Your task to perform on an android device: Open battery settings Image 0: 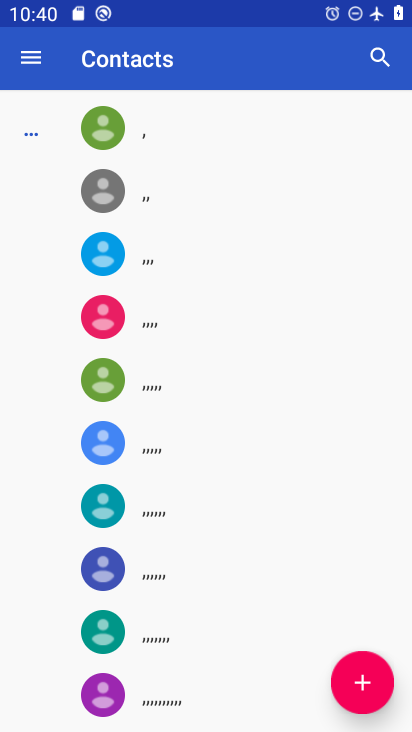
Step 0: press home button
Your task to perform on an android device: Open battery settings Image 1: 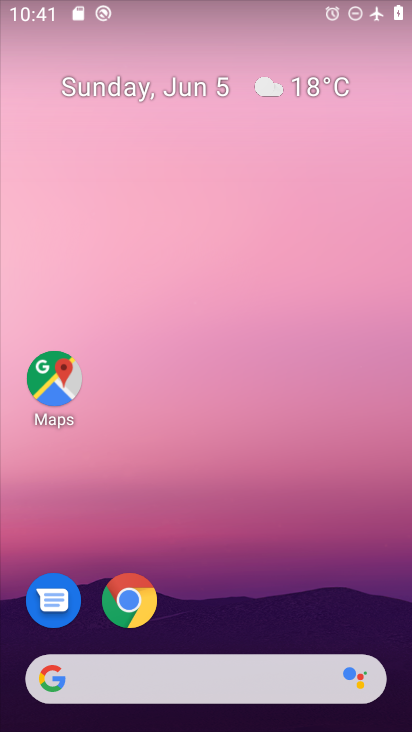
Step 1: drag from (235, 582) to (229, 0)
Your task to perform on an android device: Open battery settings Image 2: 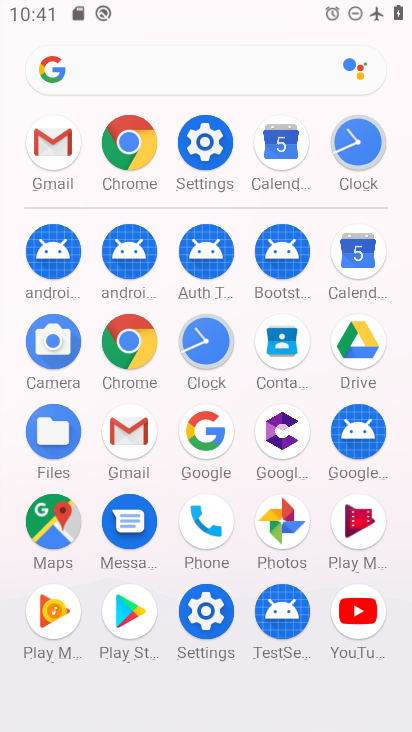
Step 2: click (216, 143)
Your task to perform on an android device: Open battery settings Image 3: 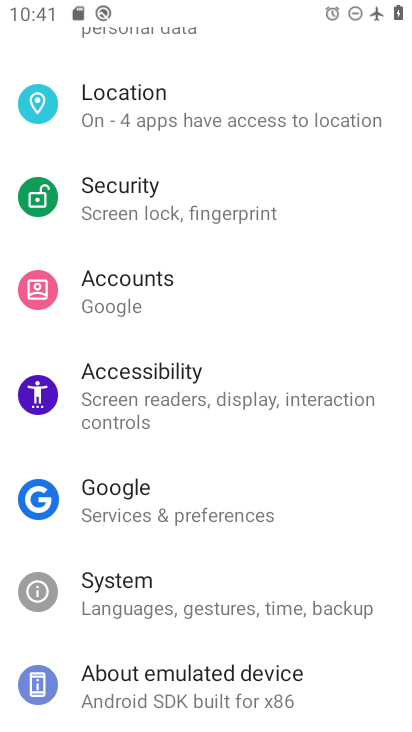
Step 3: drag from (215, 150) to (300, 730)
Your task to perform on an android device: Open battery settings Image 4: 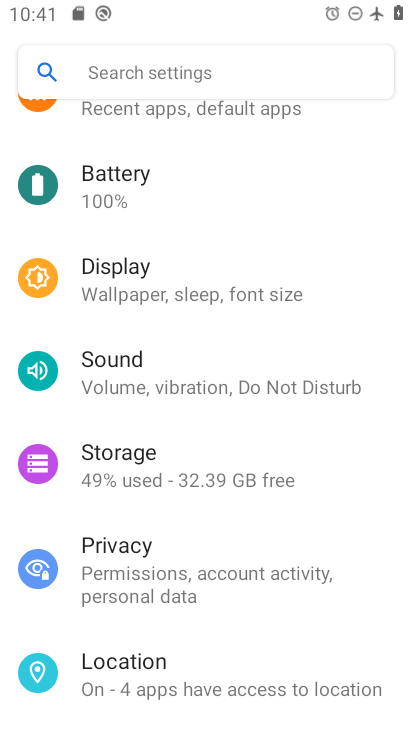
Step 4: click (178, 191)
Your task to perform on an android device: Open battery settings Image 5: 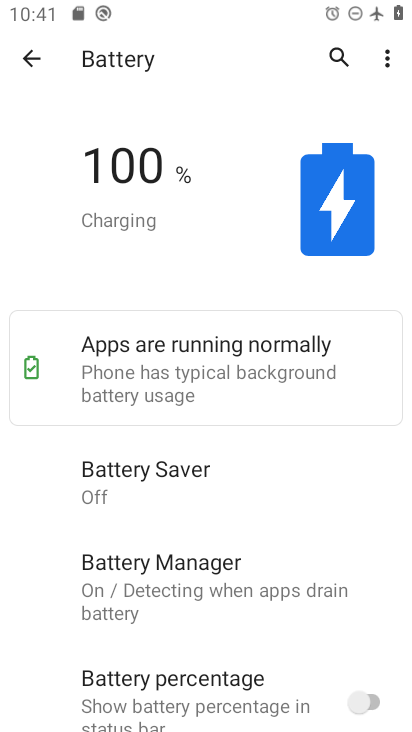
Step 5: task complete